Your task to perform on an android device: Open location settings Image 0: 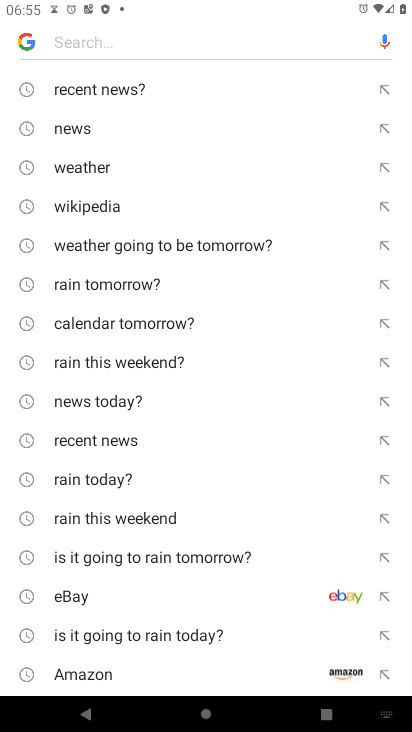
Step 0: press home button
Your task to perform on an android device: Open location settings Image 1: 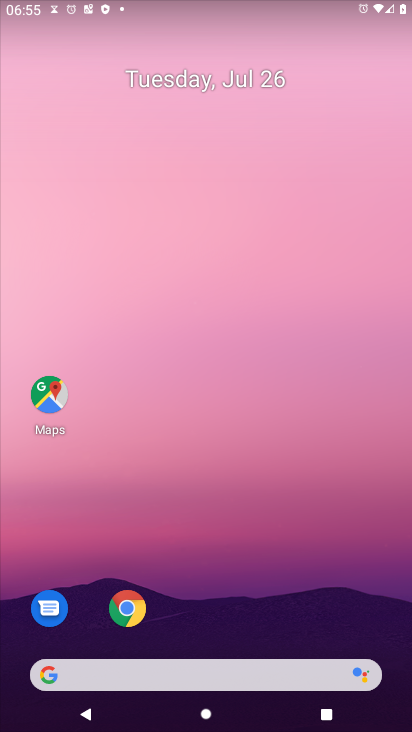
Step 1: drag from (220, 621) to (249, 154)
Your task to perform on an android device: Open location settings Image 2: 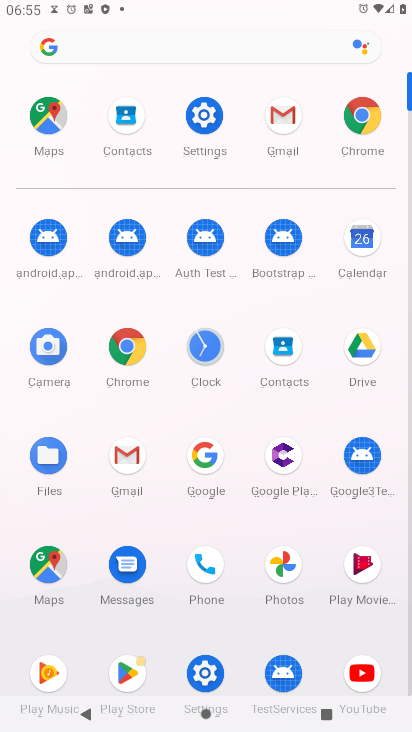
Step 2: click (215, 107)
Your task to perform on an android device: Open location settings Image 3: 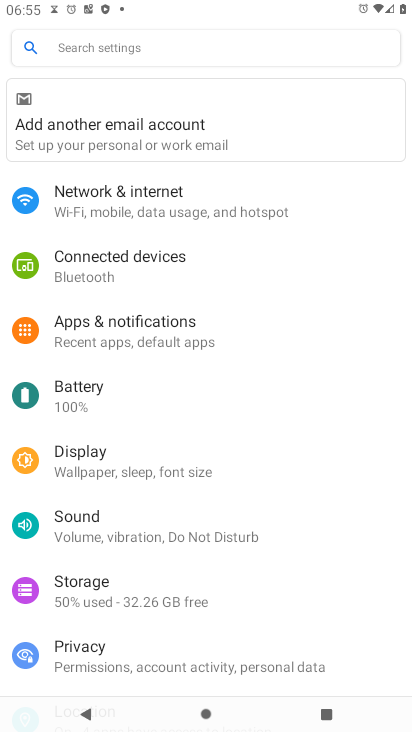
Step 3: drag from (240, 605) to (264, 235)
Your task to perform on an android device: Open location settings Image 4: 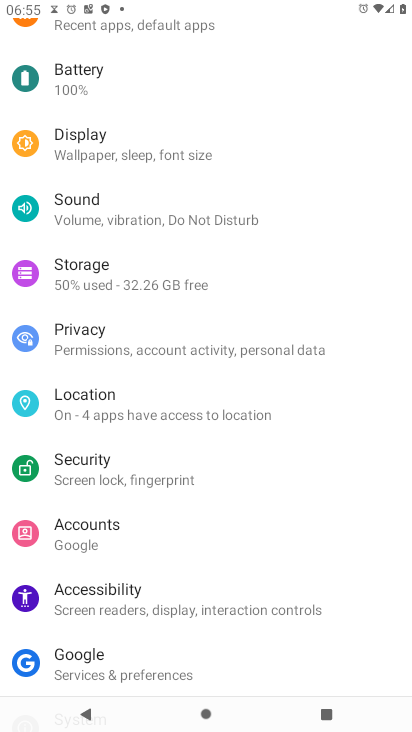
Step 4: click (86, 404)
Your task to perform on an android device: Open location settings Image 5: 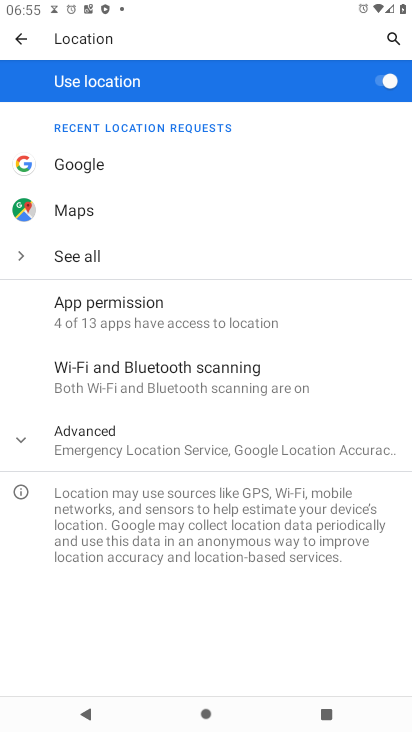
Step 5: task complete